Your task to perform on an android device: Set the phone to "Do not disturb". Image 0: 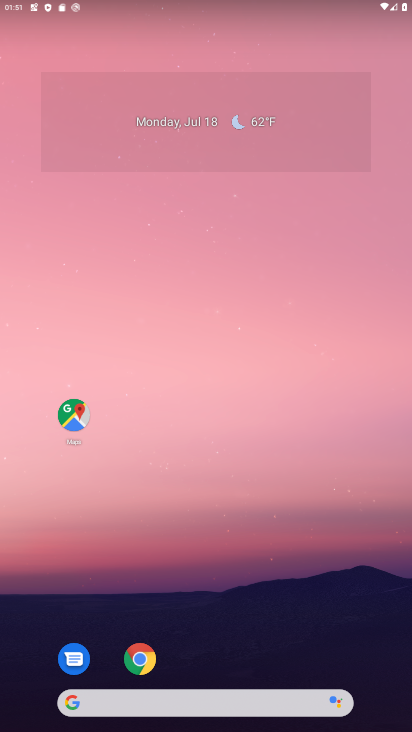
Step 0: drag from (220, 4) to (216, 436)
Your task to perform on an android device: Set the phone to "Do not disturb". Image 1: 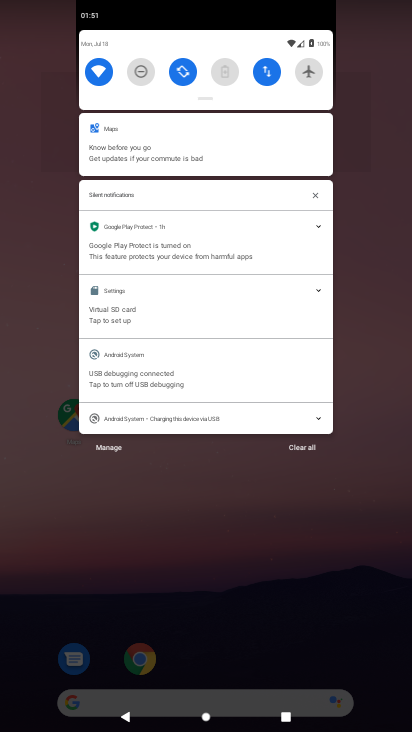
Step 1: click (140, 70)
Your task to perform on an android device: Set the phone to "Do not disturb". Image 2: 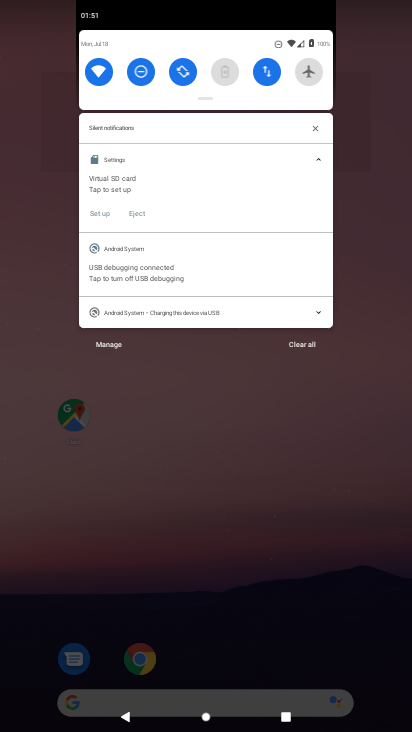
Step 2: task complete